Your task to perform on an android device: turn on airplane mode Image 0: 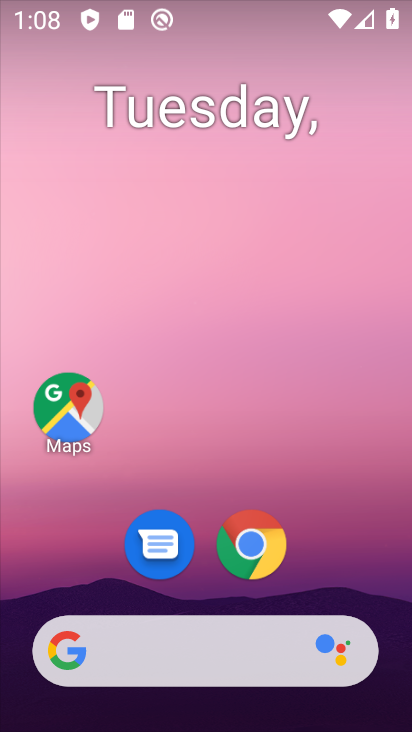
Step 0: drag from (397, 621) to (289, 111)
Your task to perform on an android device: turn on airplane mode Image 1: 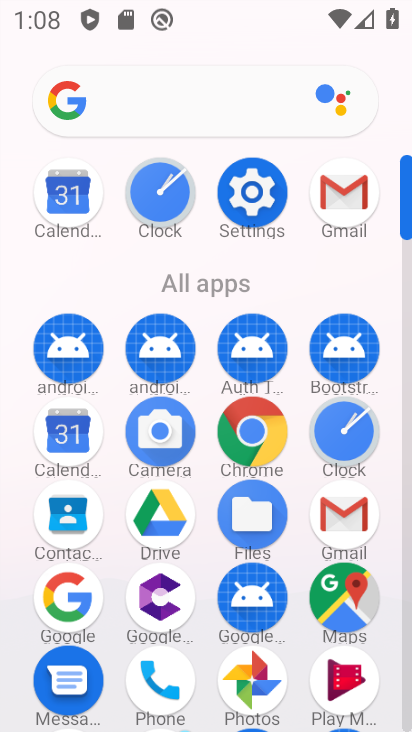
Step 1: click (411, 671)
Your task to perform on an android device: turn on airplane mode Image 2: 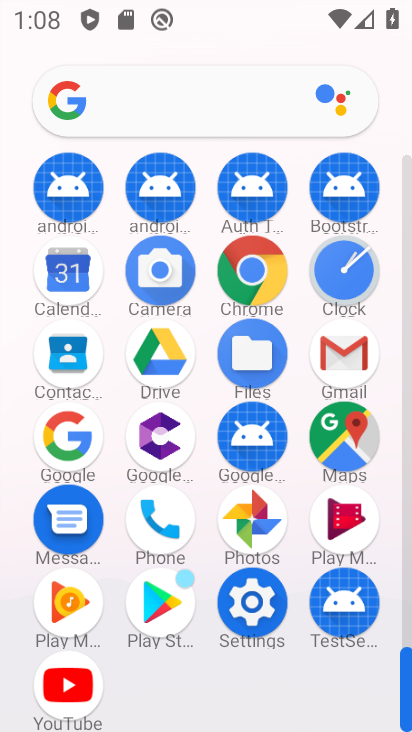
Step 2: click (252, 604)
Your task to perform on an android device: turn on airplane mode Image 3: 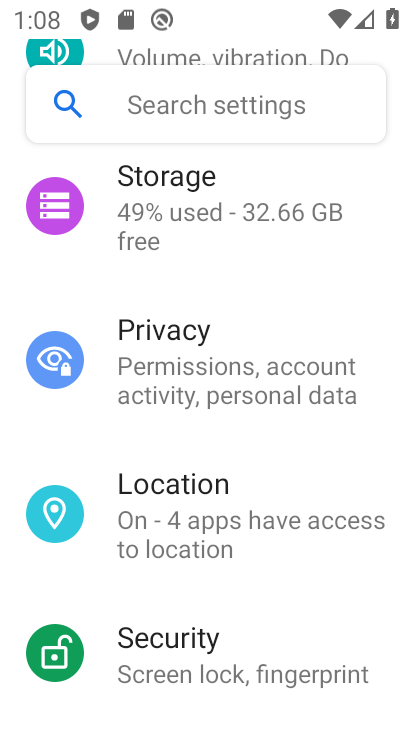
Step 3: drag from (346, 201) to (331, 538)
Your task to perform on an android device: turn on airplane mode Image 4: 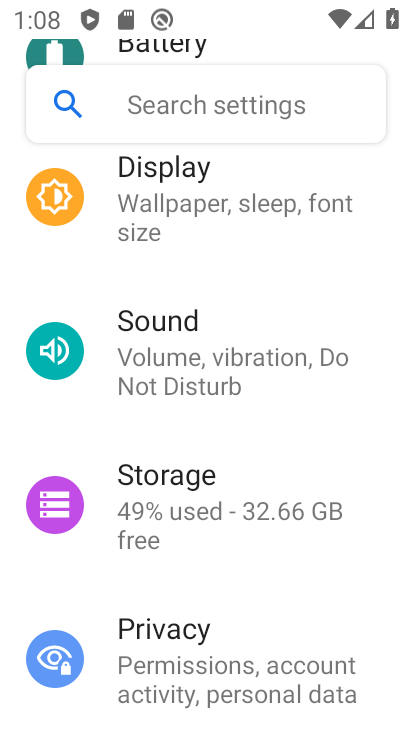
Step 4: drag from (351, 177) to (340, 529)
Your task to perform on an android device: turn on airplane mode Image 5: 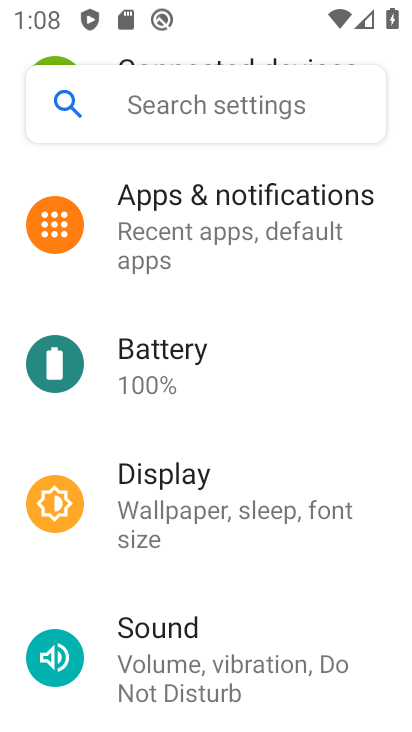
Step 5: drag from (328, 212) to (291, 559)
Your task to perform on an android device: turn on airplane mode Image 6: 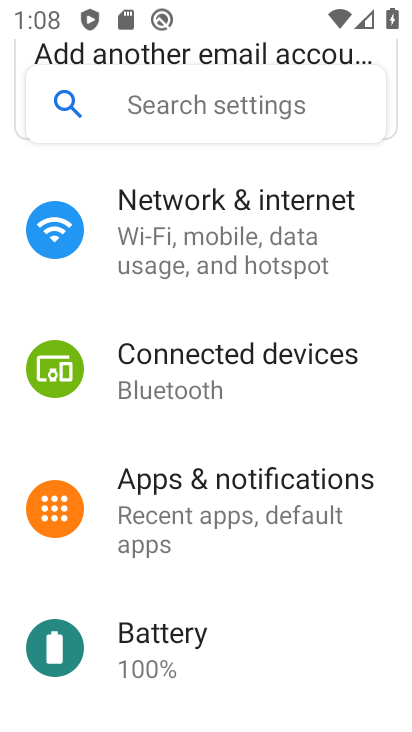
Step 6: click (190, 233)
Your task to perform on an android device: turn on airplane mode Image 7: 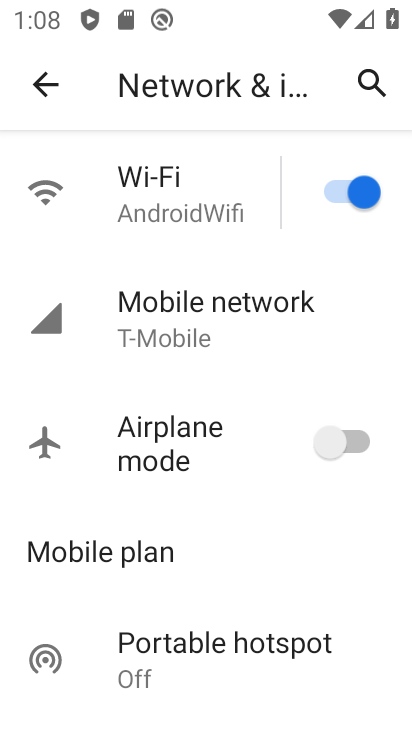
Step 7: click (363, 442)
Your task to perform on an android device: turn on airplane mode Image 8: 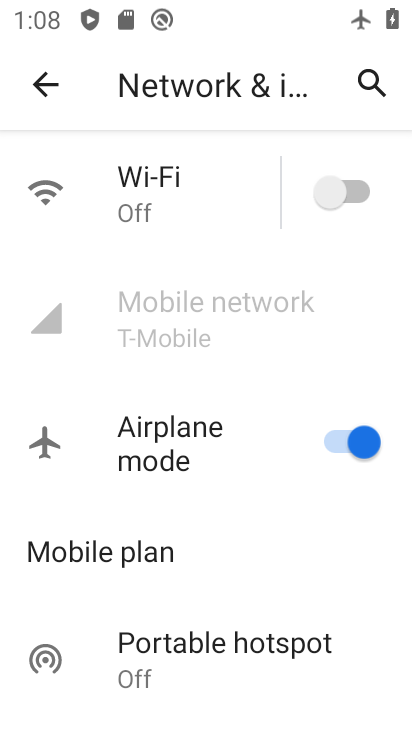
Step 8: task complete